Your task to perform on an android device: change the clock display to show seconds Image 0: 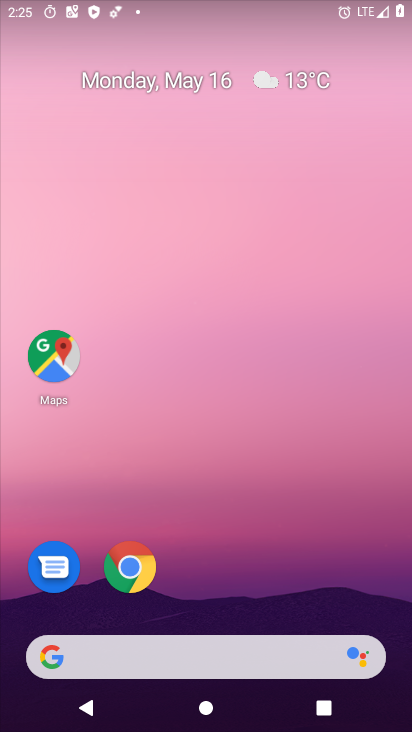
Step 0: press home button
Your task to perform on an android device: change the clock display to show seconds Image 1: 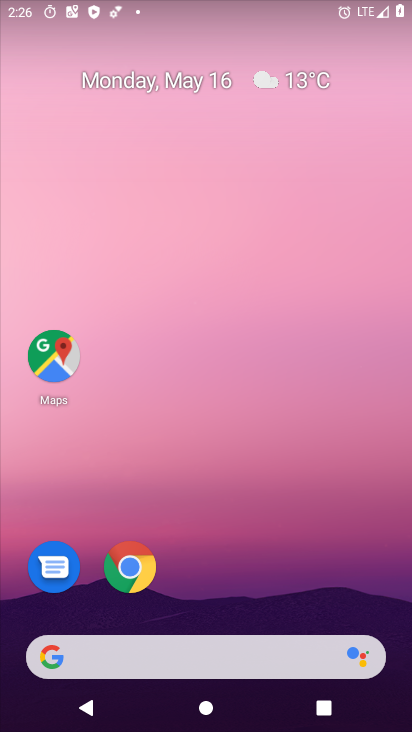
Step 1: drag from (200, 367) to (204, 150)
Your task to perform on an android device: change the clock display to show seconds Image 2: 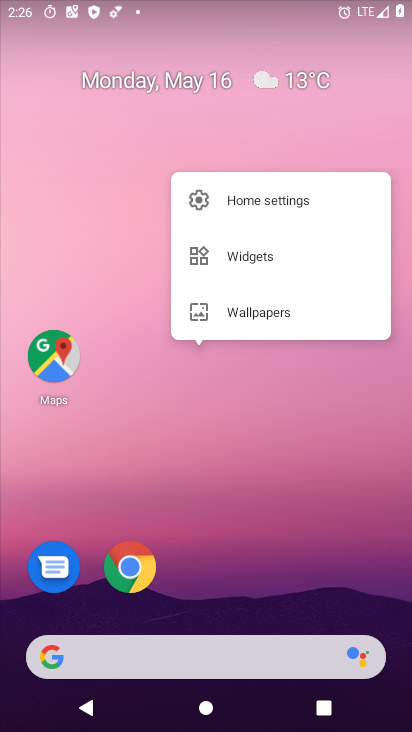
Step 2: click (242, 536)
Your task to perform on an android device: change the clock display to show seconds Image 3: 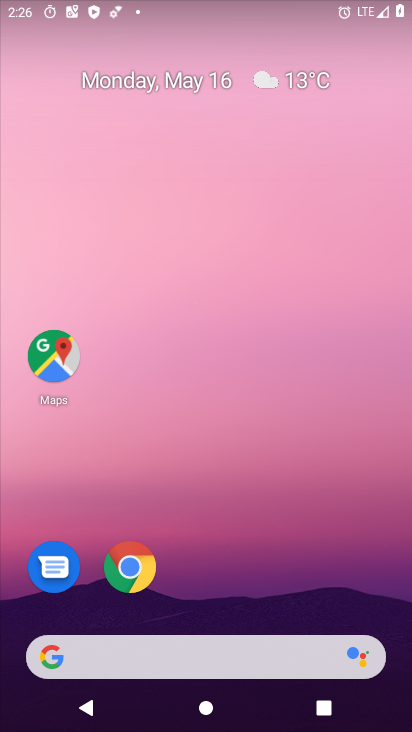
Step 3: drag from (227, 609) to (277, 52)
Your task to perform on an android device: change the clock display to show seconds Image 4: 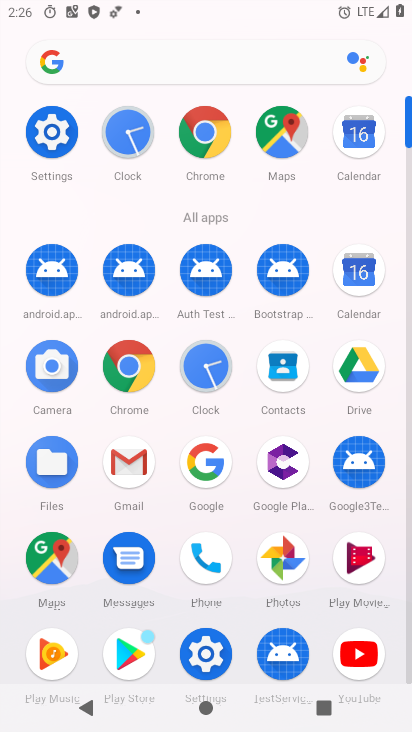
Step 4: click (119, 136)
Your task to perform on an android device: change the clock display to show seconds Image 5: 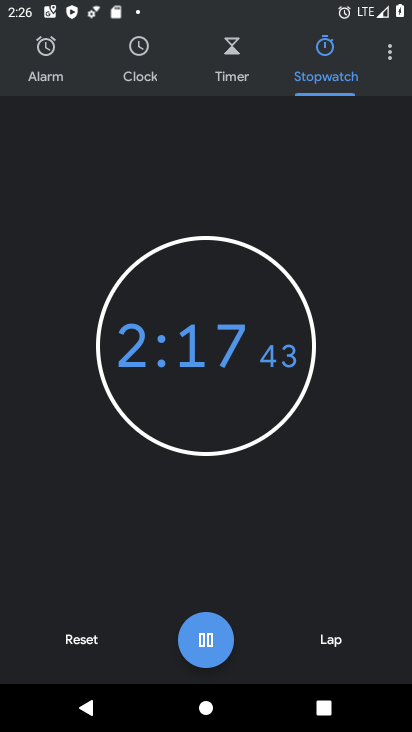
Step 5: click (395, 63)
Your task to perform on an android device: change the clock display to show seconds Image 6: 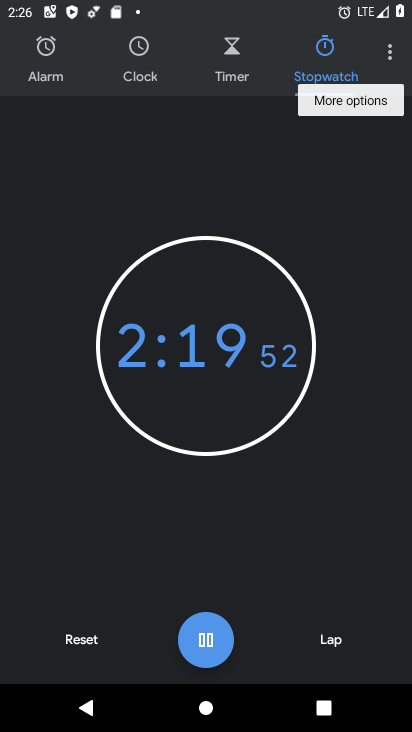
Step 6: click (395, 63)
Your task to perform on an android device: change the clock display to show seconds Image 7: 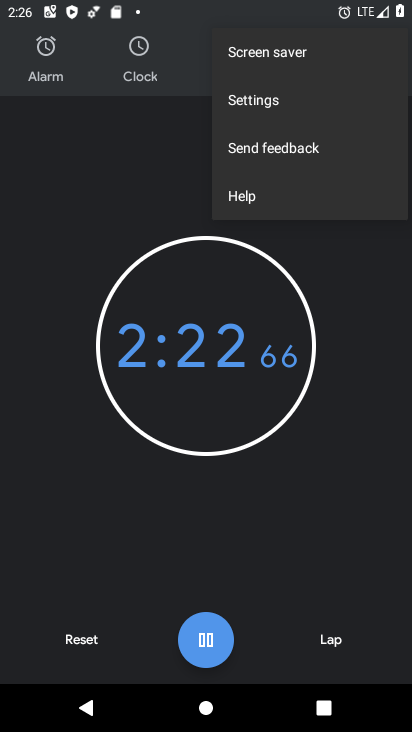
Step 7: click (233, 100)
Your task to perform on an android device: change the clock display to show seconds Image 8: 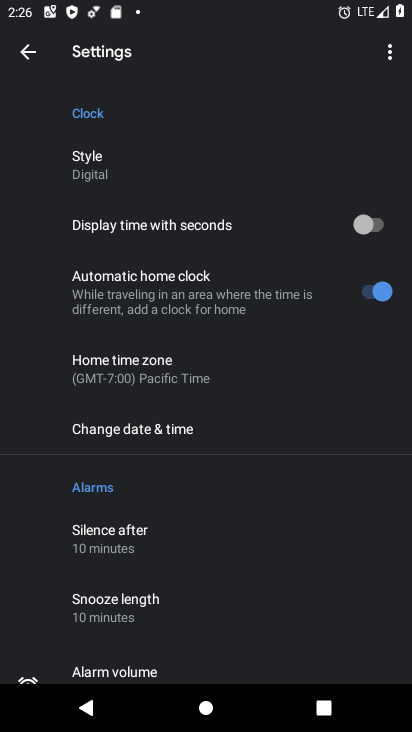
Step 8: click (366, 226)
Your task to perform on an android device: change the clock display to show seconds Image 9: 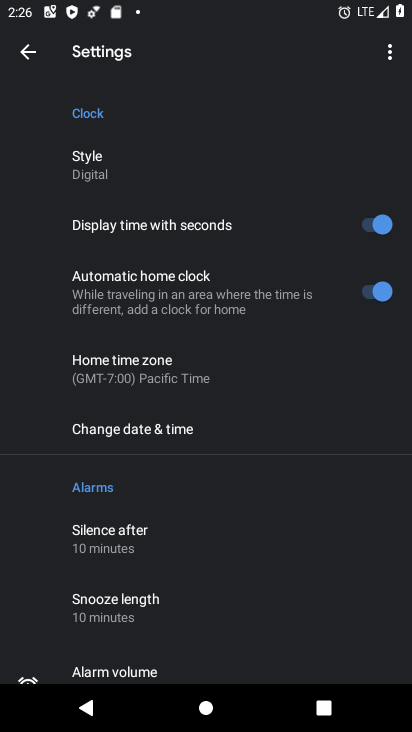
Step 9: task complete